Your task to perform on an android device: Go to Google maps Image 0: 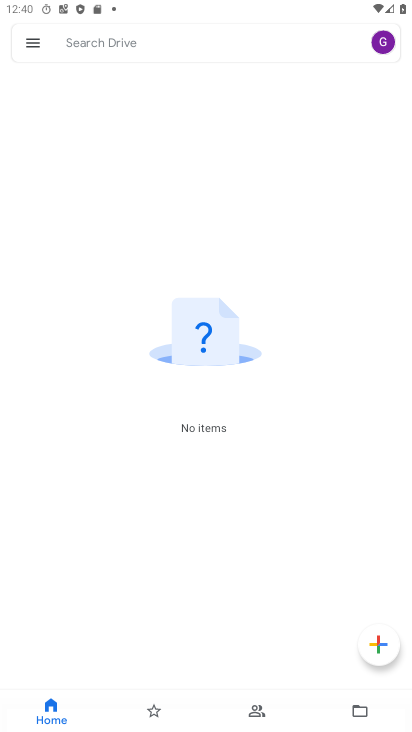
Step 0: drag from (283, 631) to (318, 131)
Your task to perform on an android device: Go to Google maps Image 1: 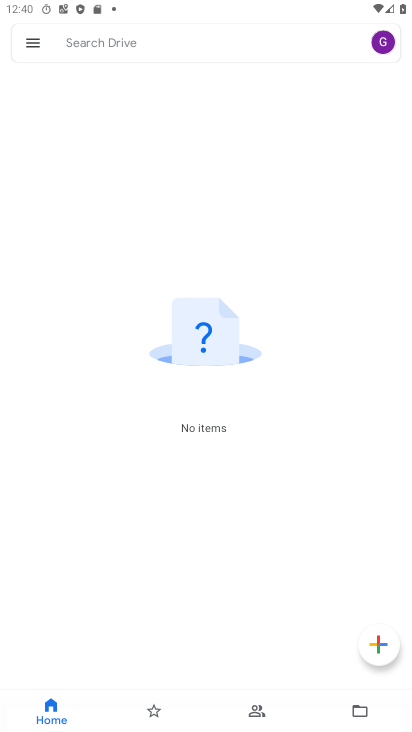
Step 1: drag from (244, 494) to (300, 166)
Your task to perform on an android device: Go to Google maps Image 2: 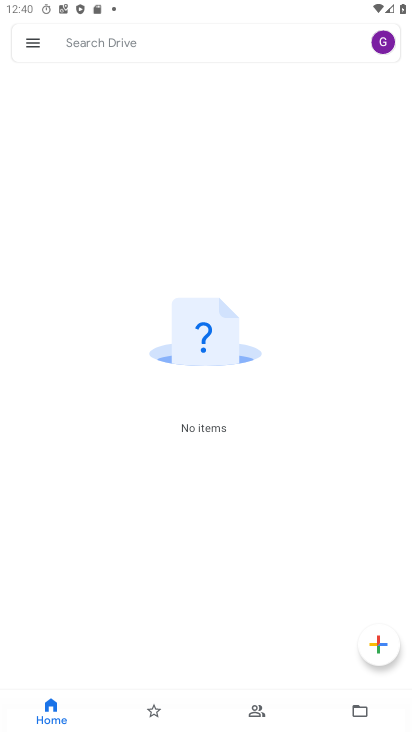
Step 2: press home button
Your task to perform on an android device: Go to Google maps Image 3: 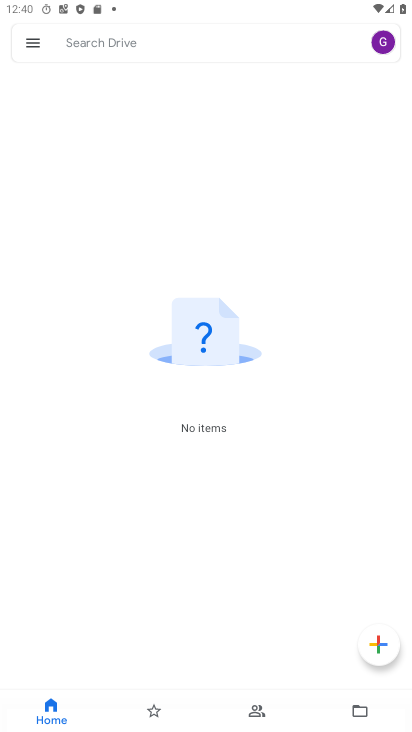
Step 3: drag from (178, 599) to (255, 150)
Your task to perform on an android device: Go to Google maps Image 4: 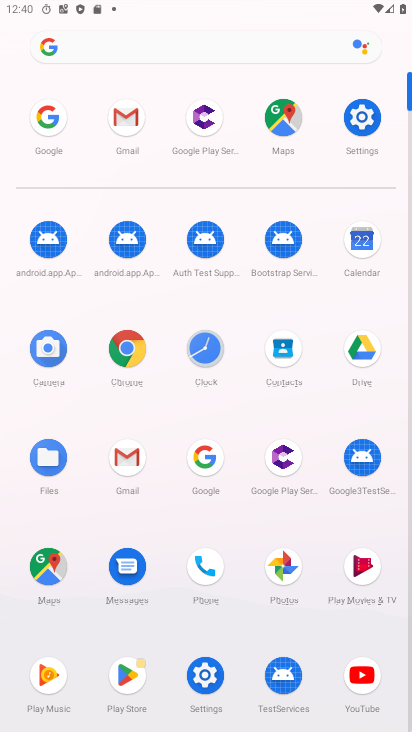
Step 4: click (61, 558)
Your task to perform on an android device: Go to Google maps Image 5: 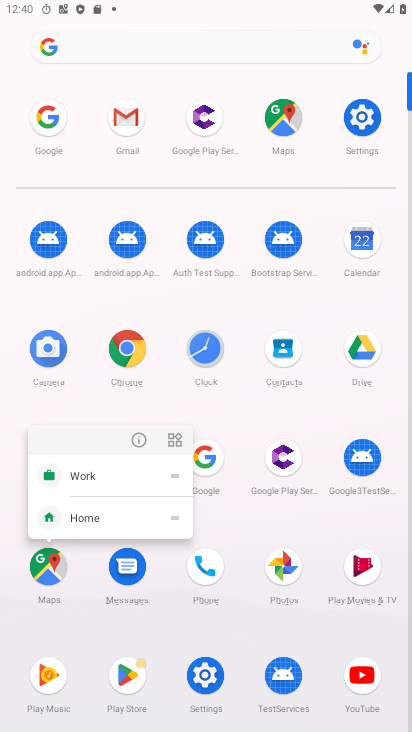
Step 5: click (139, 435)
Your task to perform on an android device: Go to Google maps Image 6: 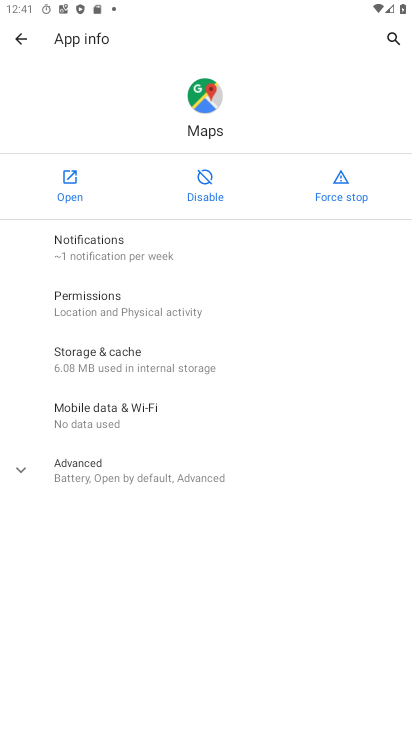
Step 6: click (77, 179)
Your task to perform on an android device: Go to Google maps Image 7: 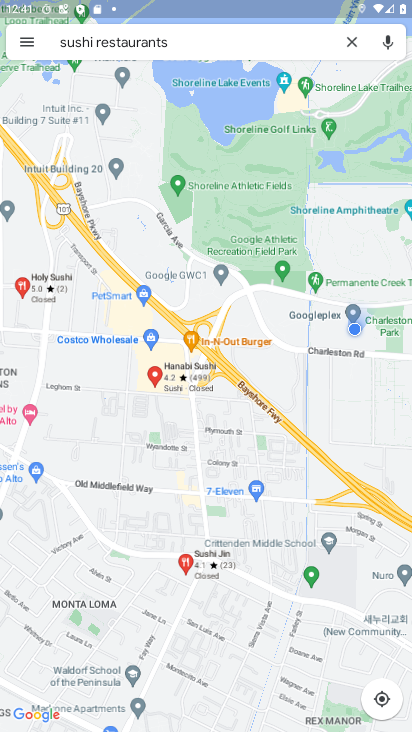
Step 7: task complete